Your task to perform on an android device: Open Chrome and go to settings Image 0: 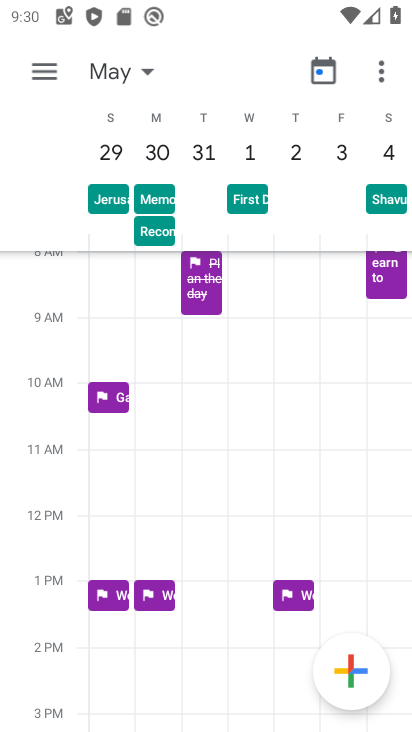
Step 0: press home button
Your task to perform on an android device: Open Chrome and go to settings Image 1: 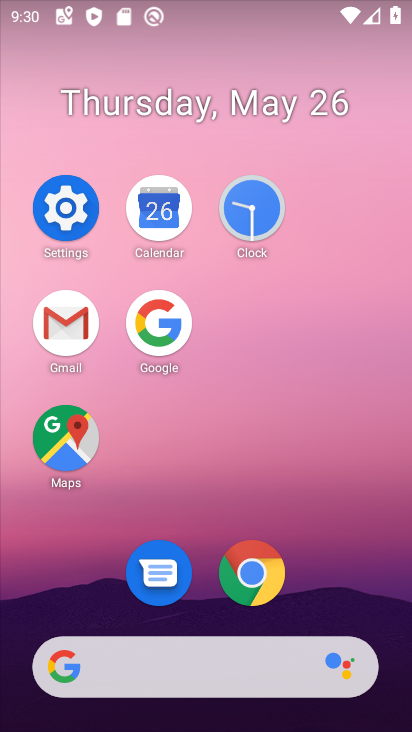
Step 1: click (268, 598)
Your task to perform on an android device: Open Chrome and go to settings Image 2: 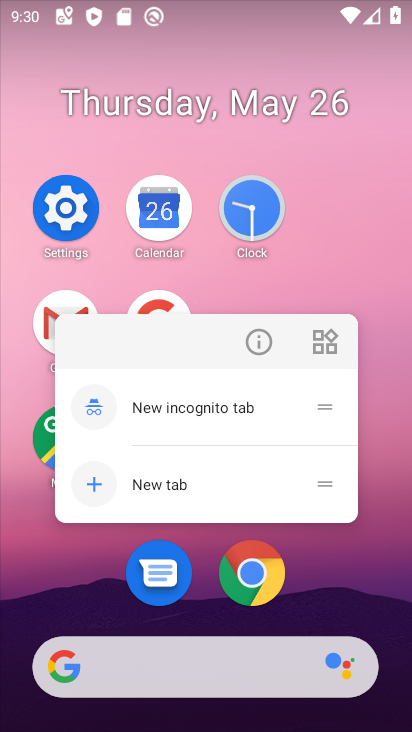
Step 2: click (260, 583)
Your task to perform on an android device: Open Chrome and go to settings Image 3: 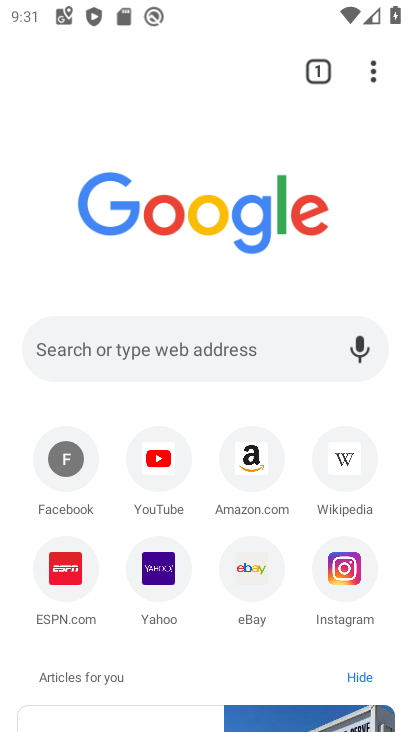
Step 3: task complete